Your task to perform on an android device: open a new tab in the chrome app Image 0: 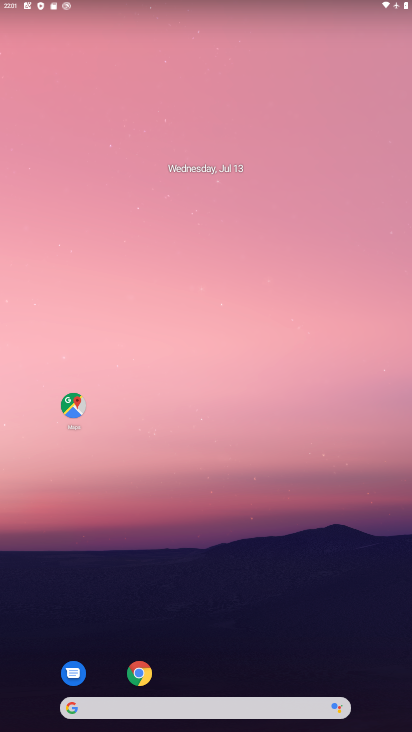
Step 0: click (132, 671)
Your task to perform on an android device: open a new tab in the chrome app Image 1: 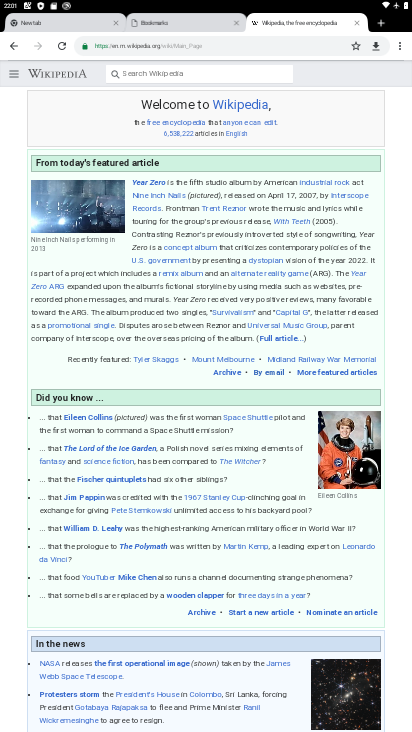
Step 1: click (386, 25)
Your task to perform on an android device: open a new tab in the chrome app Image 2: 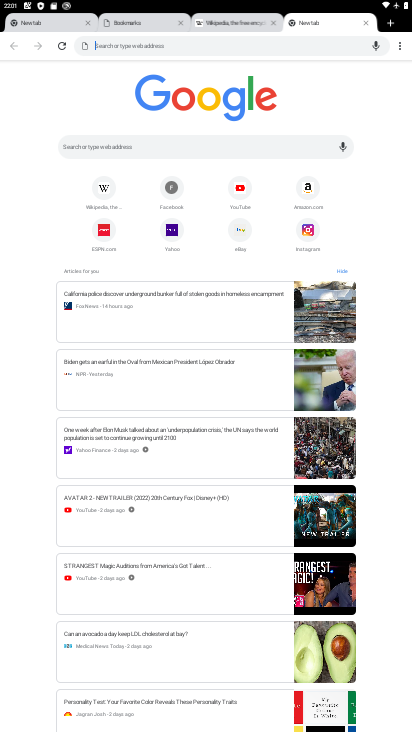
Step 2: task complete